Your task to perform on an android device: turn off priority inbox in the gmail app Image 0: 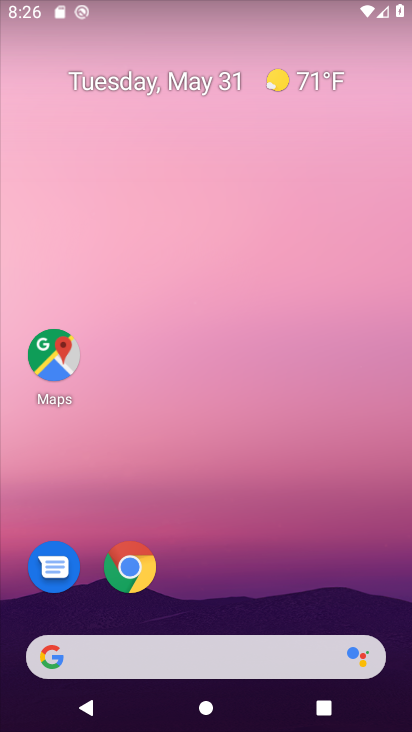
Step 0: drag from (154, 549) to (199, 157)
Your task to perform on an android device: turn off priority inbox in the gmail app Image 1: 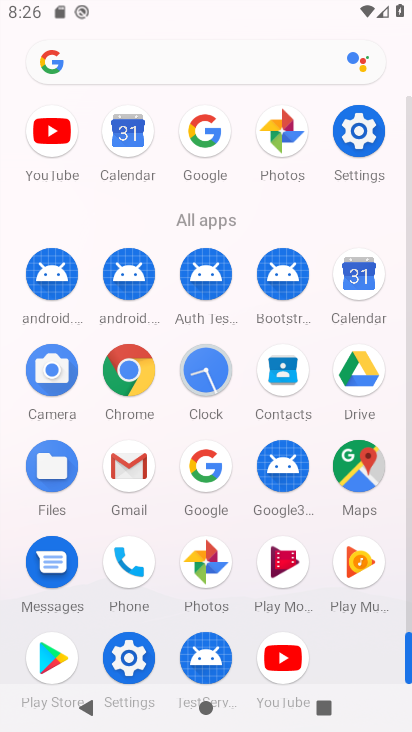
Step 1: click (133, 475)
Your task to perform on an android device: turn off priority inbox in the gmail app Image 2: 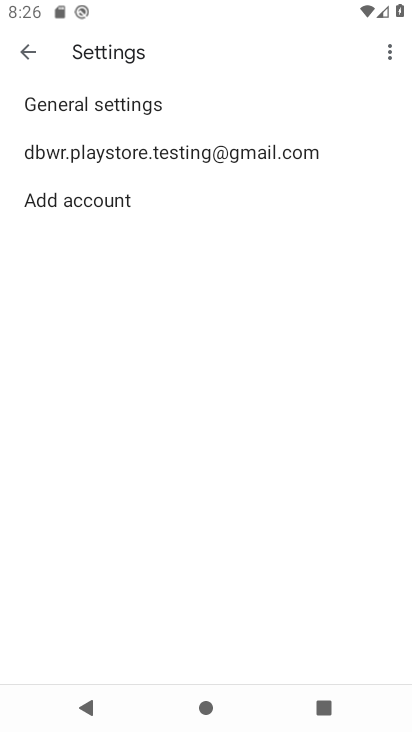
Step 2: click (150, 153)
Your task to perform on an android device: turn off priority inbox in the gmail app Image 3: 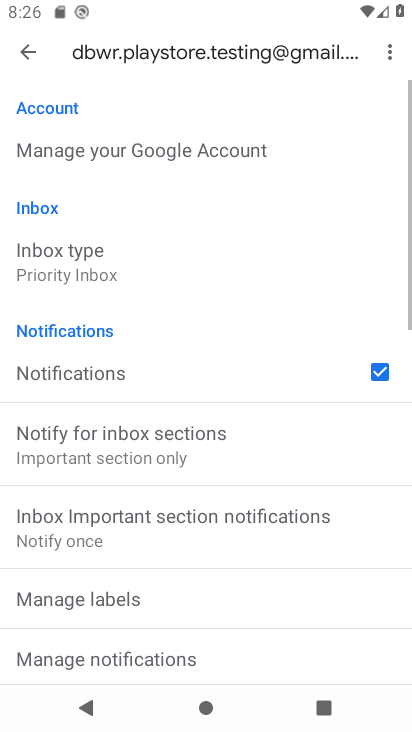
Step 3: click (42, 262)
Your task to perform on an android device: turn off priority inbox in the gmail app Image 4: 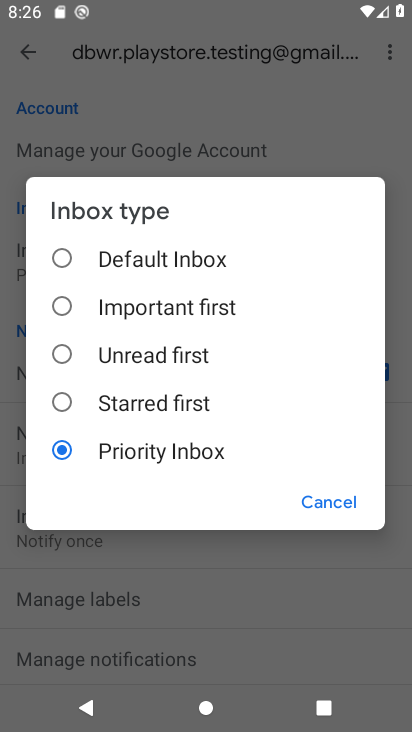
Step 4: click (59, 306)
Your task to perform on an android device: turn off priority inbox in the gmail app Image 5: 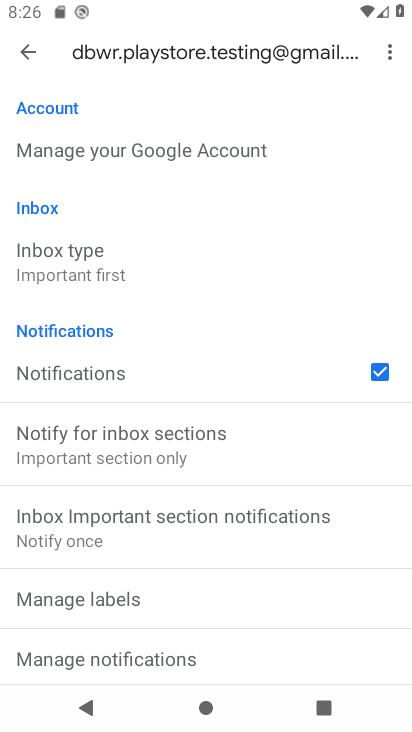
Step 5: task complete